Your task to perform on an android device: Go to Wikipedia Image 0: 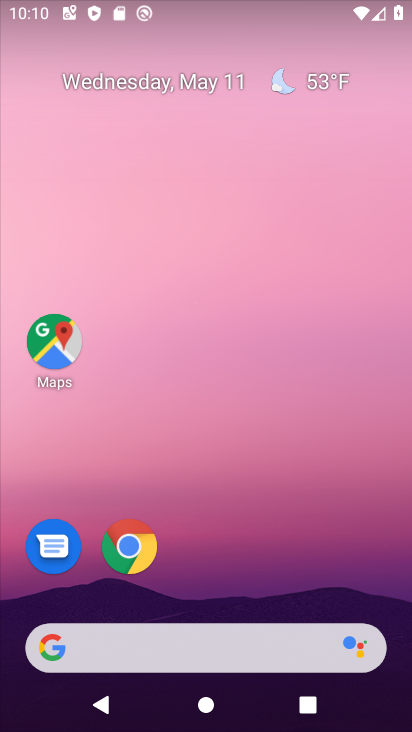
Step 0: drag from (390, 608) to (340, 62)
Your task to perform on an android device: Go to Wikipedia Image 1: 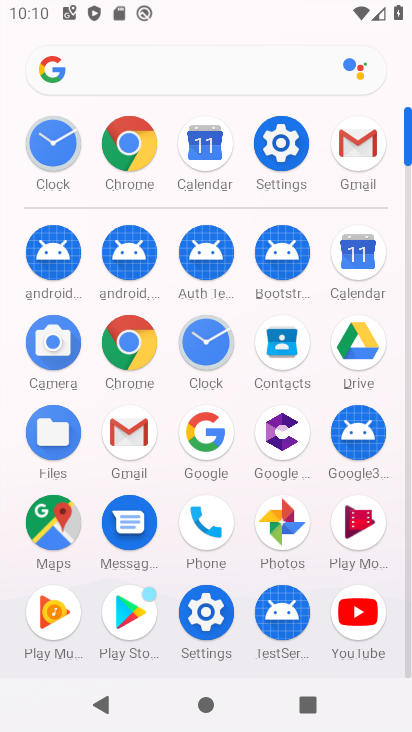
Step 1: click (156, 352)
Your task to perform on an android device: Go to Wikipedia Image 2: 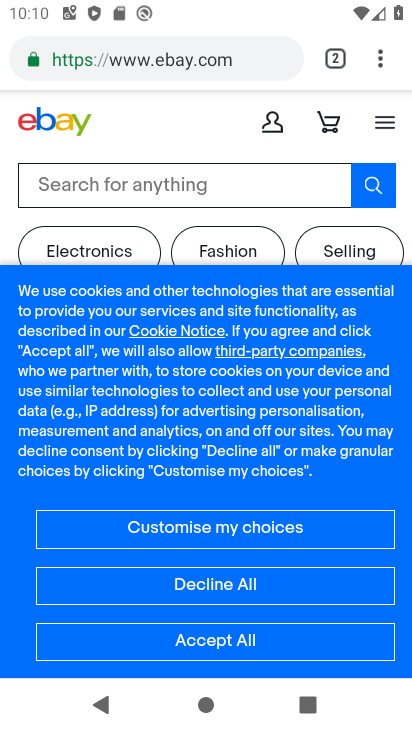
Step 2: press back button
Your task to perform on an android device: Go to Wikipedia Image 3: 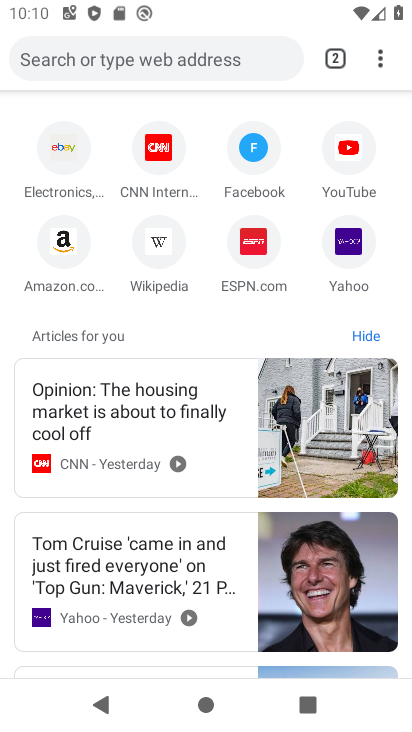
Step 3: click (128, 243)
Your task to perform on an android device: Go to Wikipedia Image 4: 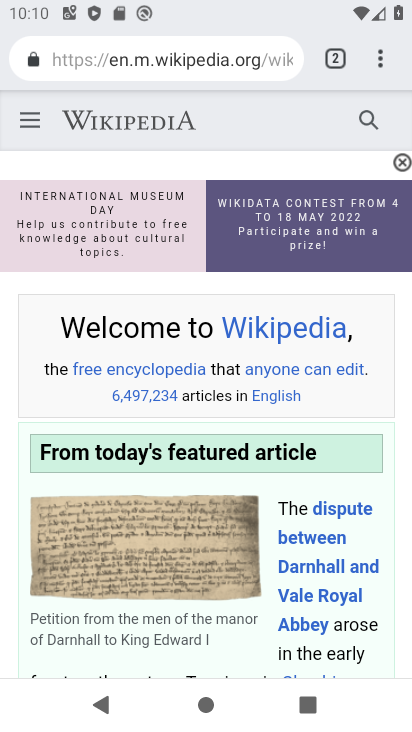
Step 4: task complete